Your task to perform on an android device: check storage Image 0: 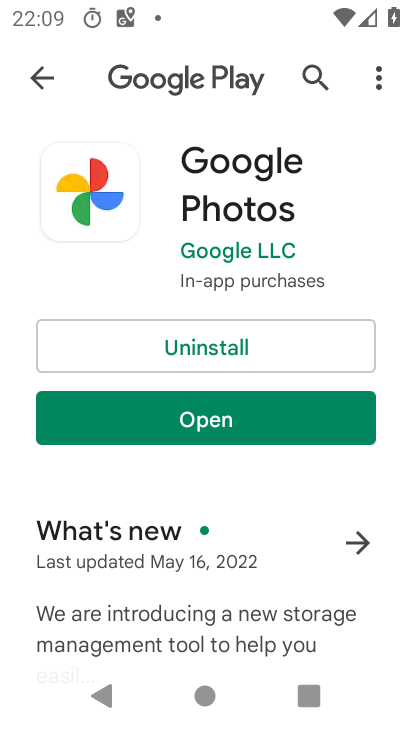
Step 0: press home button
Your task to perform on an android device: check storage Image 1: 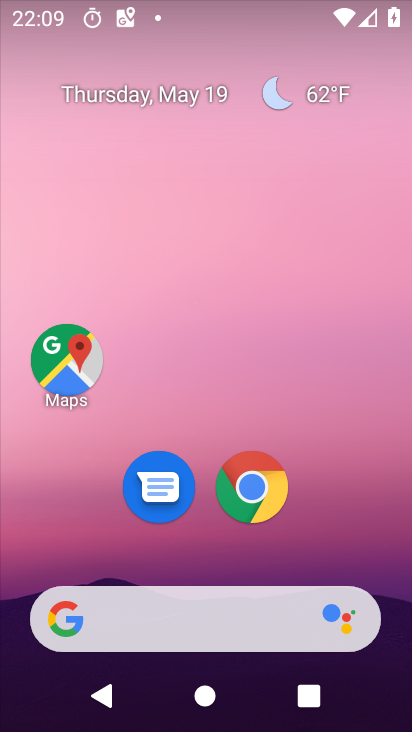
Step 1: drag from (329, 504) to (289, 99)
Your task to perform on an android device: check storage Image 2: 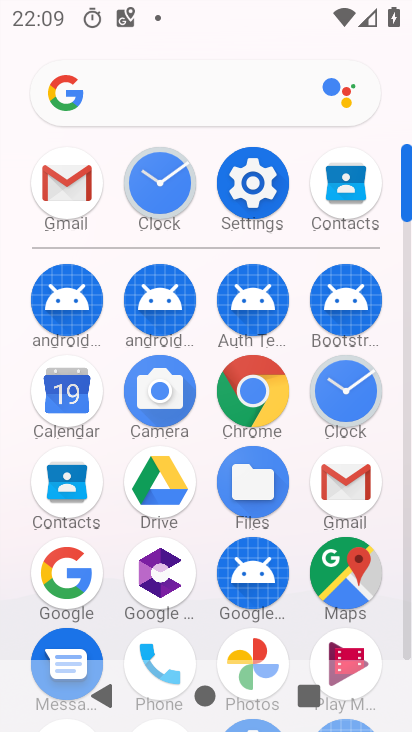
Step 2: click (251, 206)
Your task to perform on an android device: check storage Image 3: 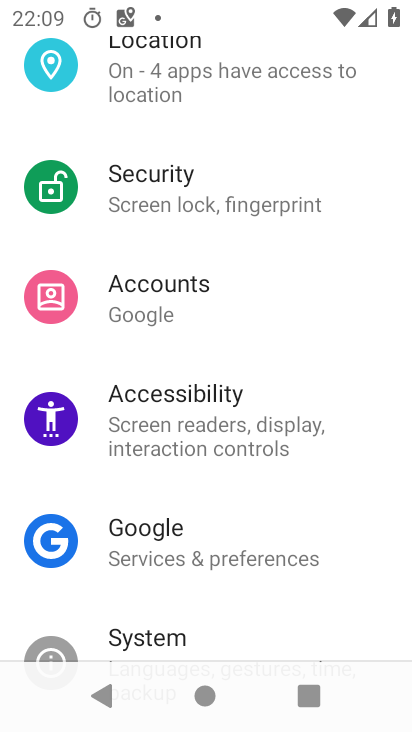
Step 3: drag from (360, 207) to (324, 536)
Your task to perform on an android device: check storage Image 4: 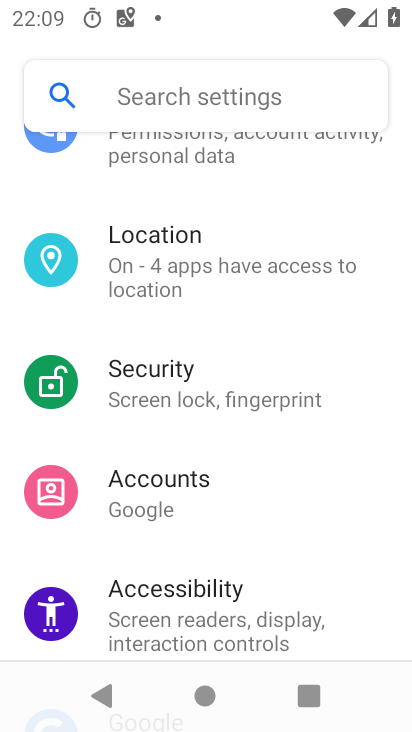
Step 4: drag from (275, 211) to (270, 573)
Your task to perform on an android device: check storage Image 5: 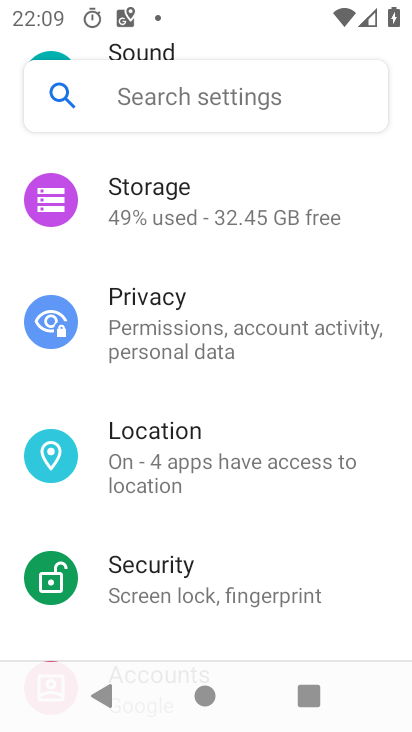
Step 5: click (242, 205)
Your task to perform on an android device: check storage Image 6: 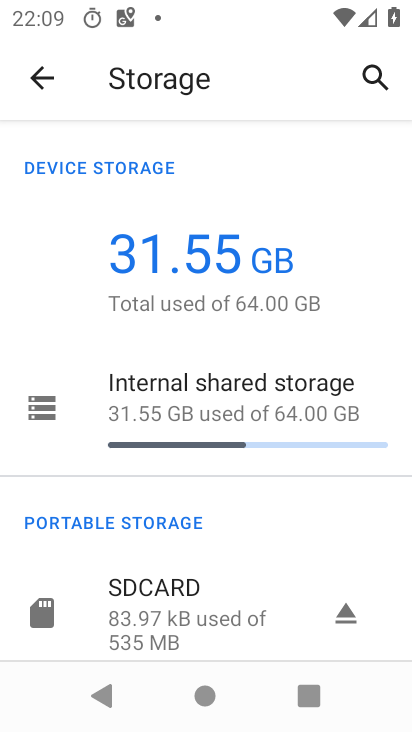
Step 6: task complete